Your task to perform on an android device: Open display settings Image 0: 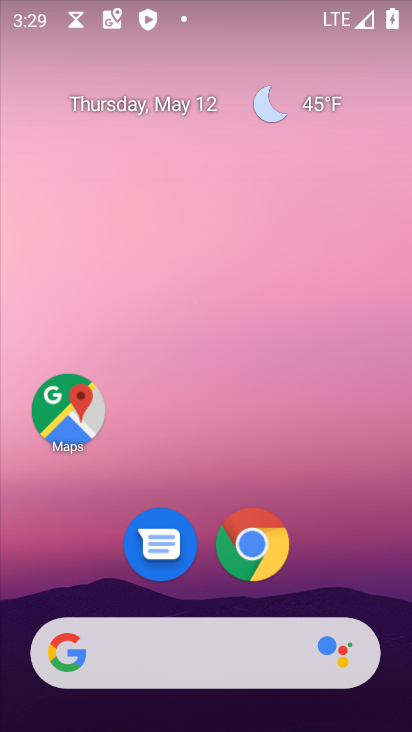
Step 0: drag from (313, 588) to (282, 61)
Your task to perform on an android device: Open display settings Image 1: 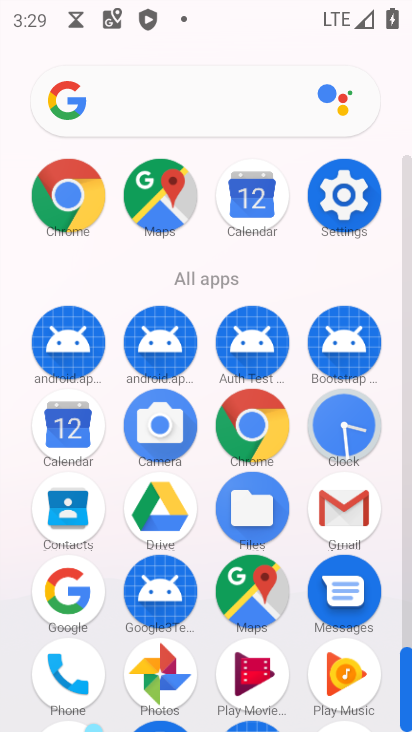
Step 1: click (342, 178)
Your task to perform on an android device: Open display settings Image 2: 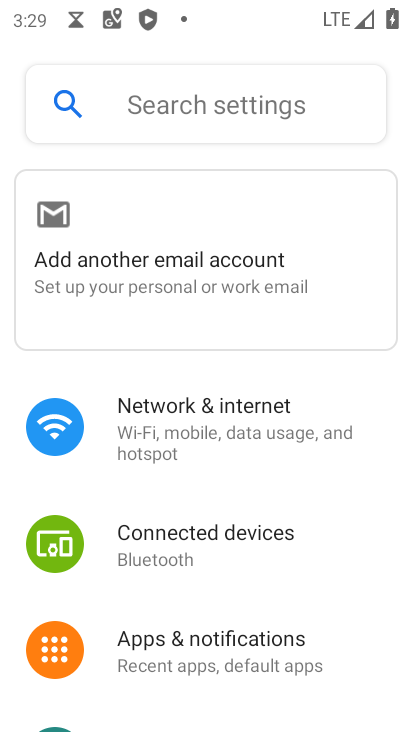
Step 2: drag from (226, 649) to (219, 370)
Your task to perform on an android device: Open display settings Image 3: 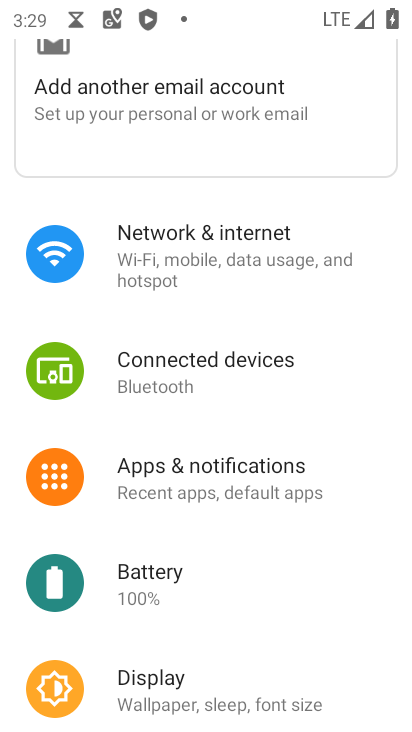
Step 3: click (197, 665)
Your task to perform on an android device: Open display settings Image 4: 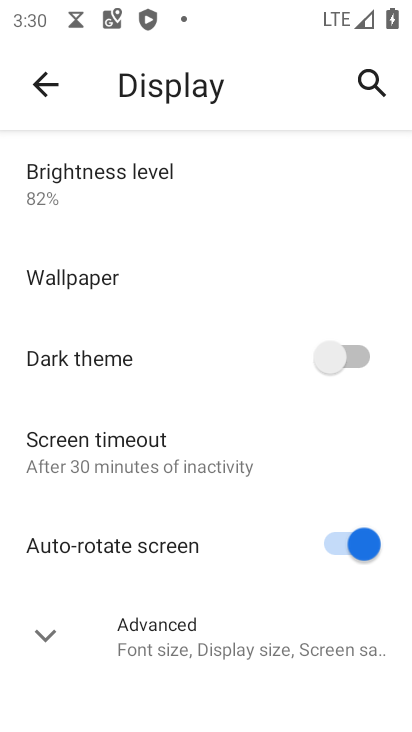
Step 4: task complete